Your task to perform on an android device: move an email to a new category in the gmail app Image 0: 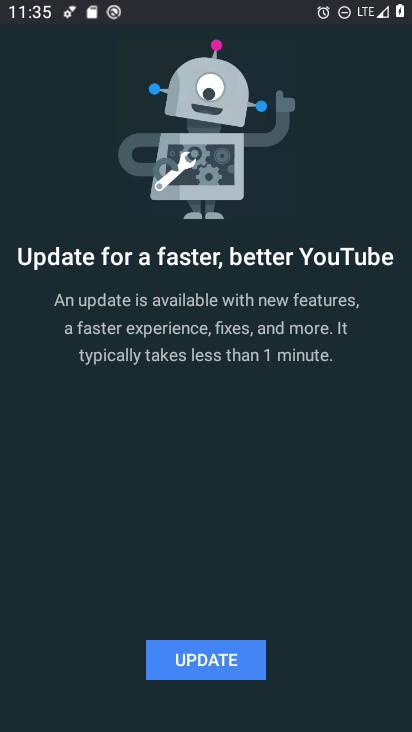
Step 0: press home button
Your task to perform on an android device: move an email to a new category in the gmail app Image 1: 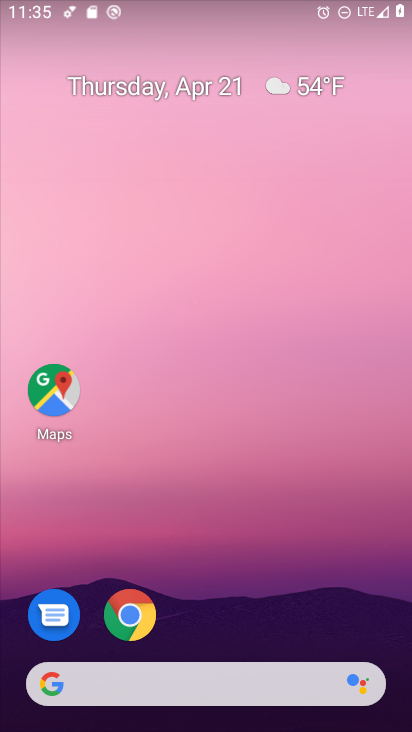
Step 1: drag from (278, 628) to (248, 55)
Your task to perform on an android device: move an email to a new category in the gmail app Image 2: 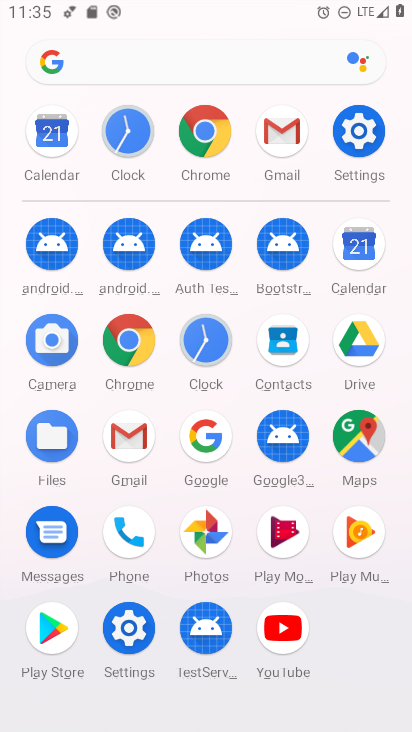
Step 2: click (134, 442)
Your task to perform on an android device: move an email to a new category in the gmail app Image 3: 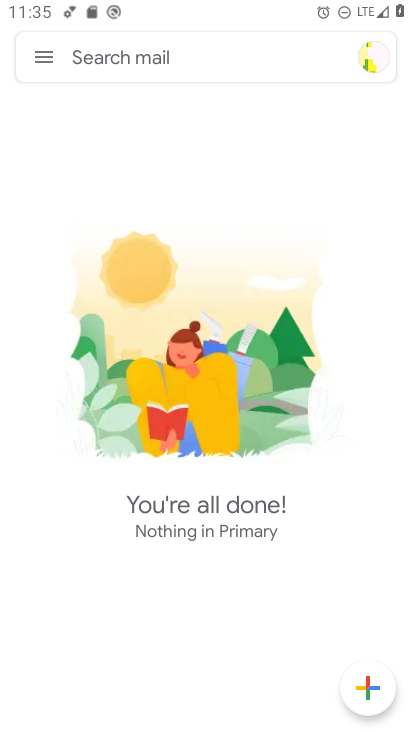
Step 3: click (52, 55)
Your task to perform on an android device: move an email to a new category in the gmail app Image 4: 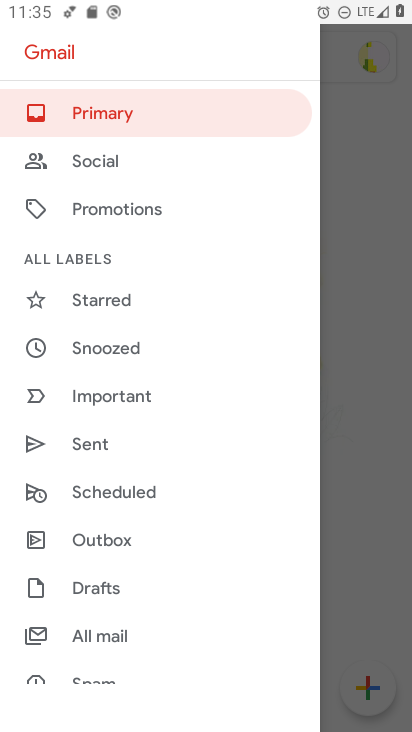
Step 4: click (82, 637)
Your task to perform on an android device: move an email to a new category in the gmail app Image 5: 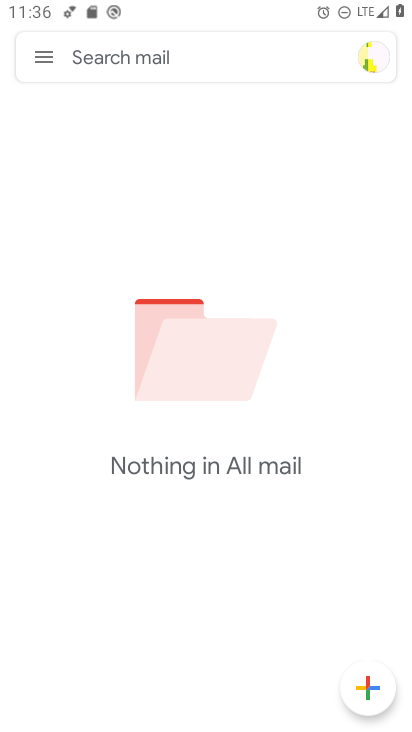
Step 5: task complete